Your task to perform on an android device: Go to internet settings Image 0: 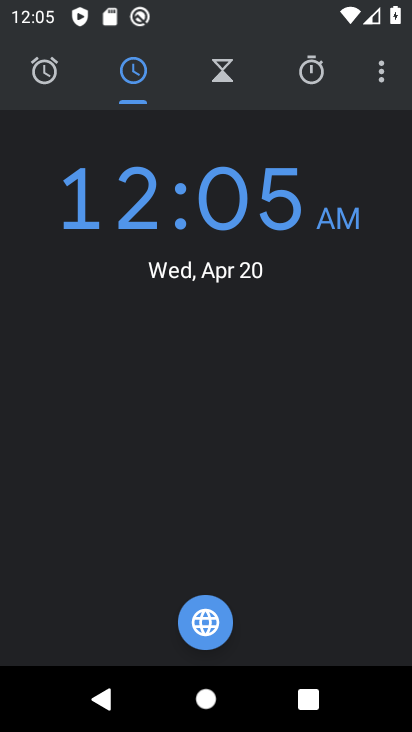
Step 0: press home button
Your task to perform on an android device: Go to internet settings Image 1: 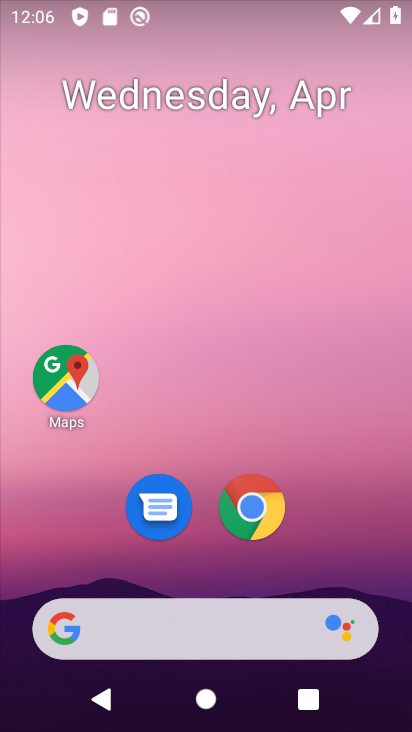
Step 1: drag from (201, 569) to (193, 153)
Your task to perform on an android device: Go to internet settings Image 2: 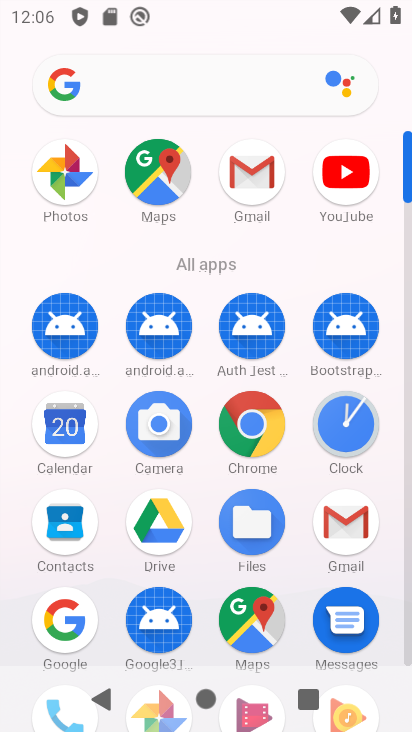
Step 2: drag from (198, 555) to (211, 199)
Your task to perform on an android device: Go to internet settings Image 3: 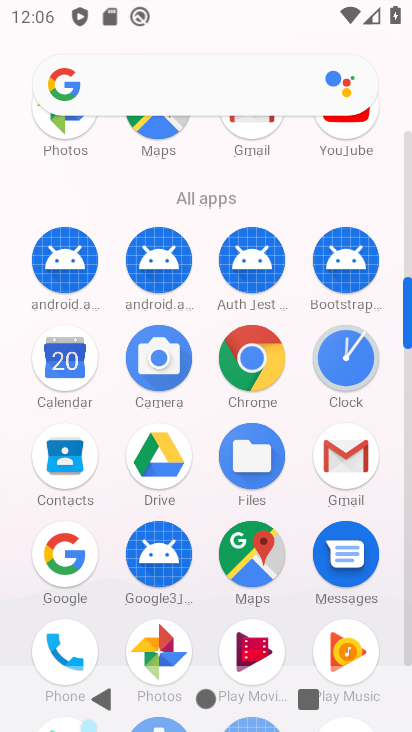
Step 3: drag from (216, 496) to (225, 204)
Your task to perform on an android device: Go to internet settings Image 4: 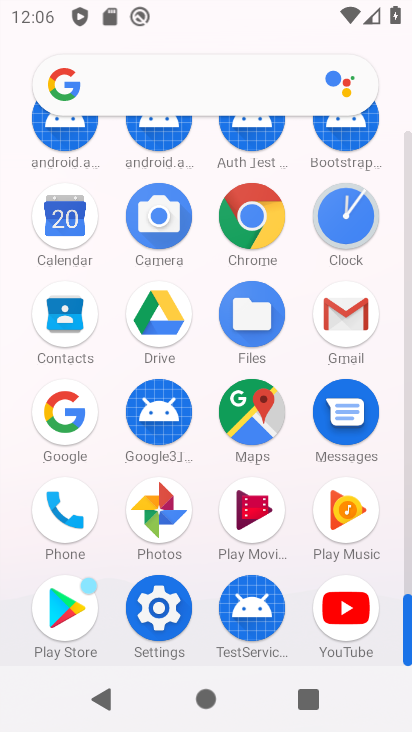
Step 4: click (166, 589)
Your task to perform on an android device: Go to internet settings Image 5: 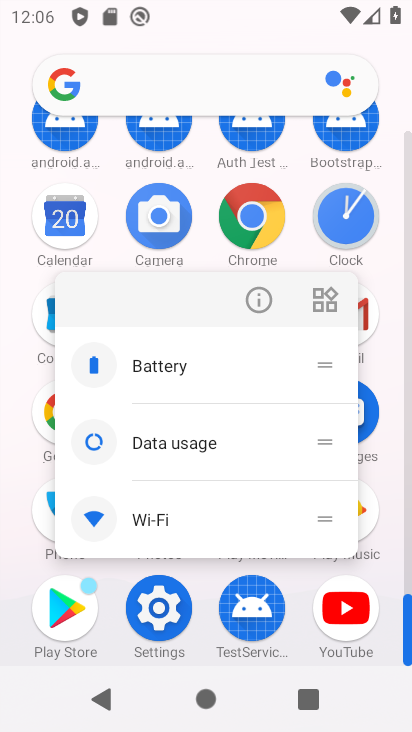
Step 5: click (164, 619)
Your task to perform on an android device: Go to internet settings Image 6: 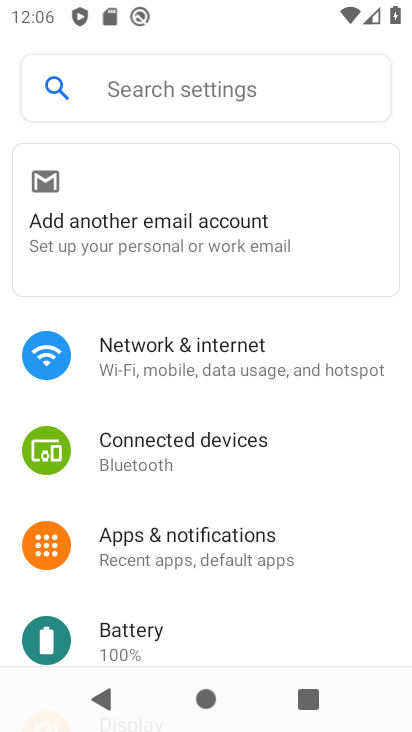
Step 6: click (180, 351)
Your task to perform on an android device: Go to internet settings Image 7: 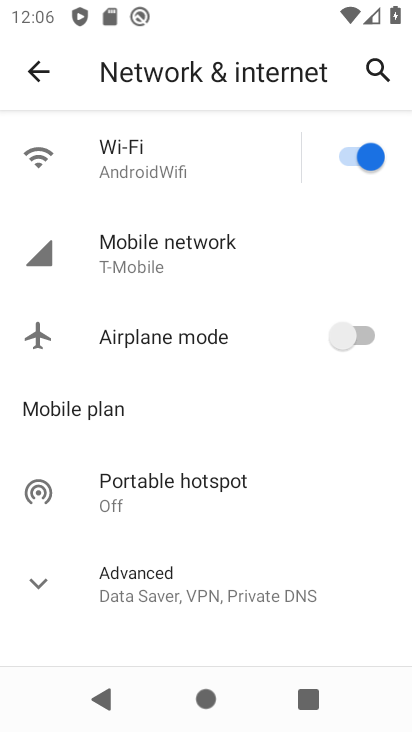
Step 7: task complete